Your task to perform on an android device: check storage Image 0: 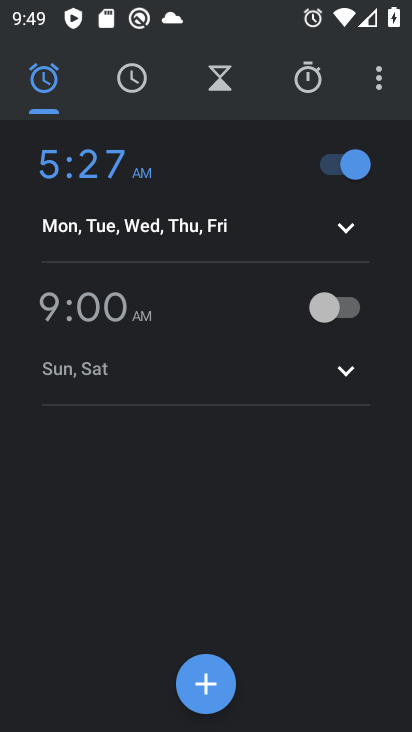
Step 0: press home button
Your task to perform on an android device: check storage Image 1: 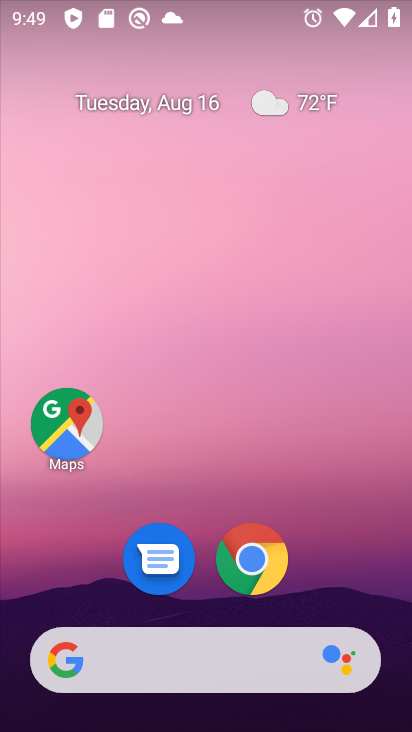
Step 1: drag from (177, 668) to (186, 79)
Your task to perform on an android device: check storage Image 2: 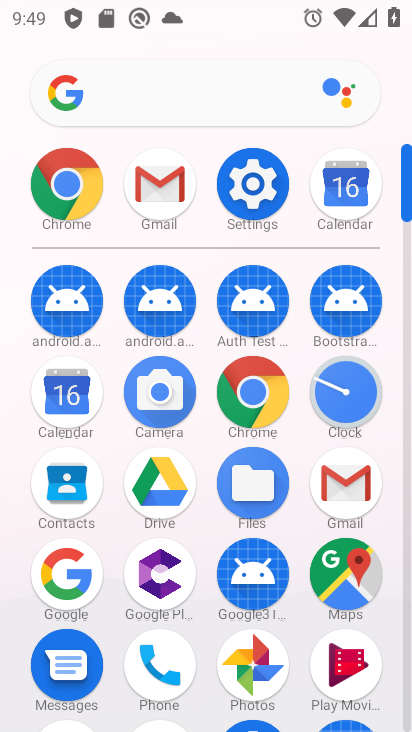
Step 2: click (252, 186)
Your task to perform on an android device: check storage Image 3: 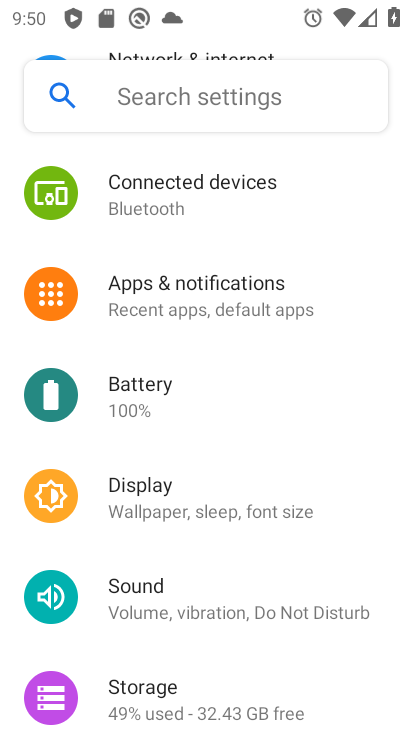
Step 3: drag from (166, 561) to (230, 448)
Your task to perform on an android device: check storage Image 4: 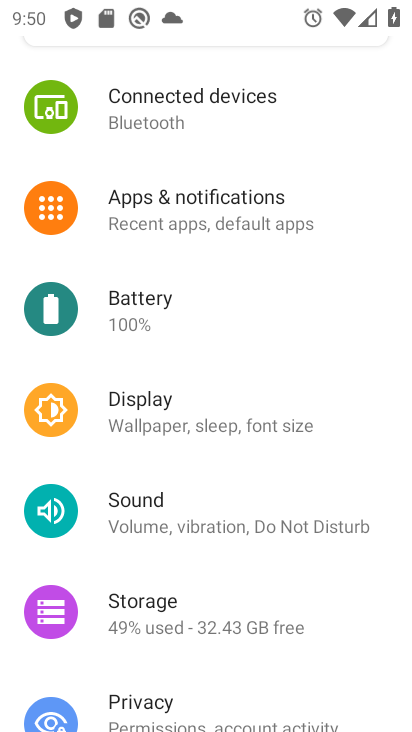
Step 4: drag from (213, 557) to (278, 428)
Your task to perform on an android device: check storage Image 5: 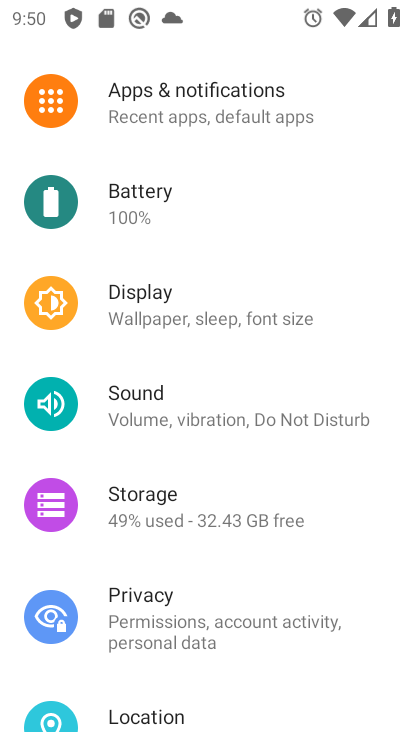
Step 5: click (174, 512)
Your task to perform on an android device: check storage Image 6: 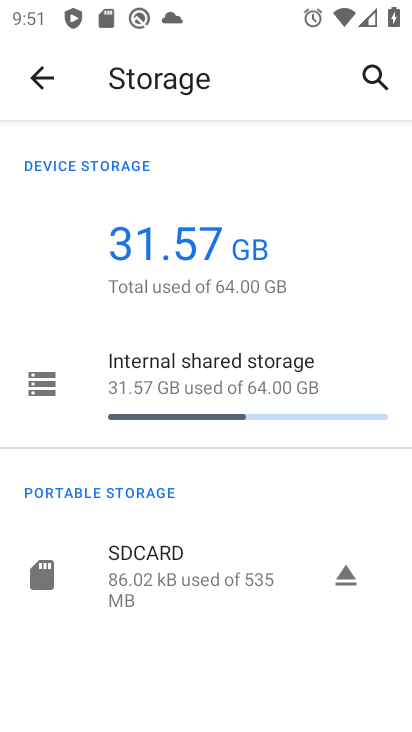
Step 6: task complete